Your task to perform on an android device: Open CNN.com Image 0: 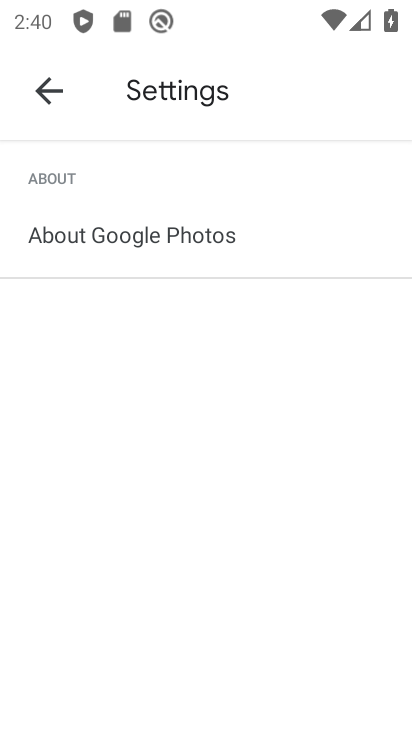
Step 0: press home button
Your task to perform on an android device: Open CNN.com Image 1: 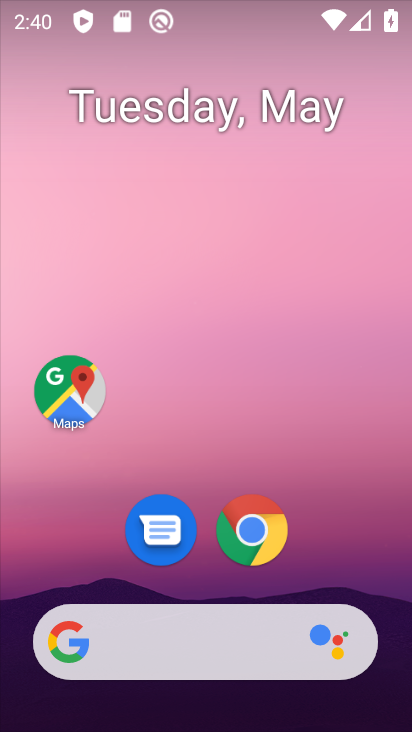
Step 1: click (257, 539)
Your task to perform on an android device: Open CNN.com Image 2: 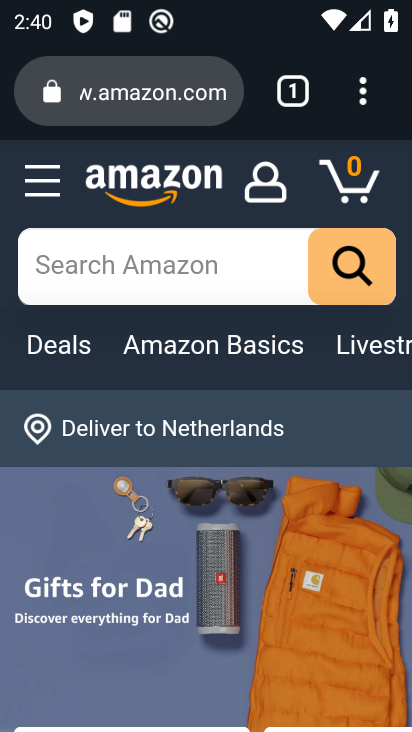
Step 2: click (171, 83)
Your task to perform on an android device: Open CNN.com Image 3: 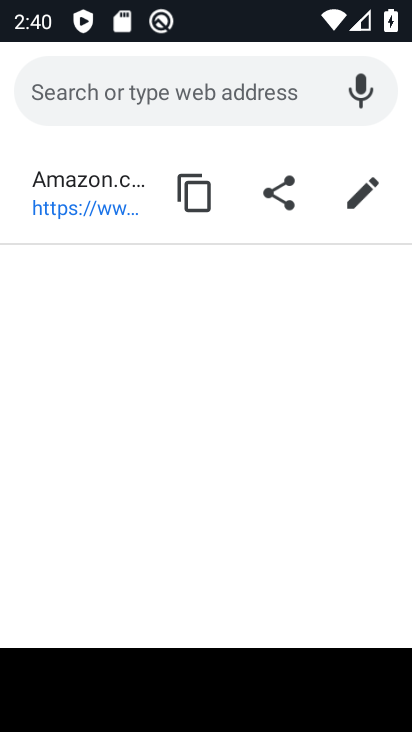
Step 3: type "CNN.com"
Your task to perform on an android device: Open CNN.com Image 4: 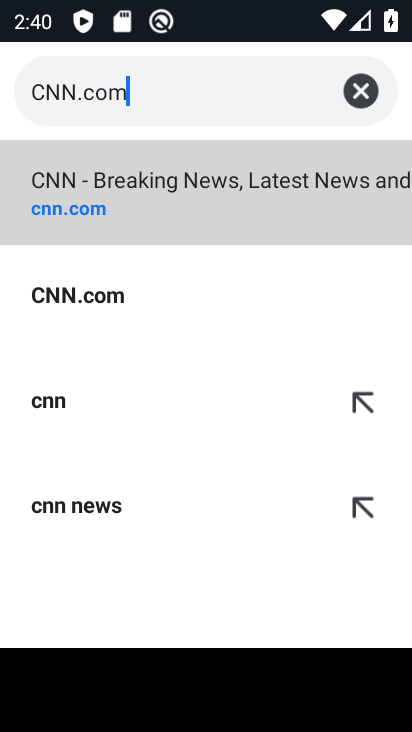
Step 4: type ""
Your task to perform on an android device: Open CNN.com Image 5: 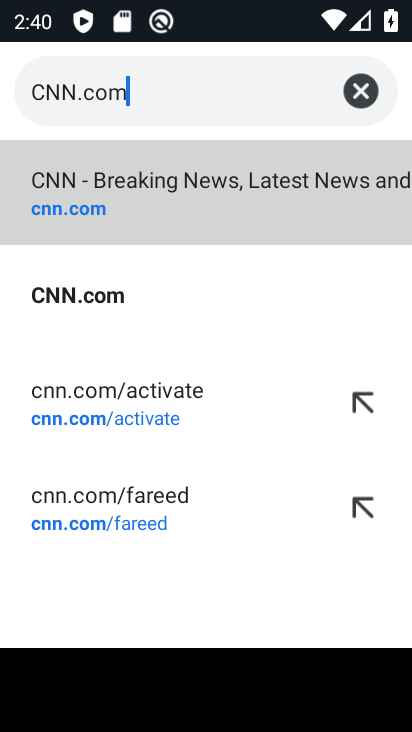
Step 5: click (172, 187)
Your task to perform on an android device: Open CNN.com Image 6: 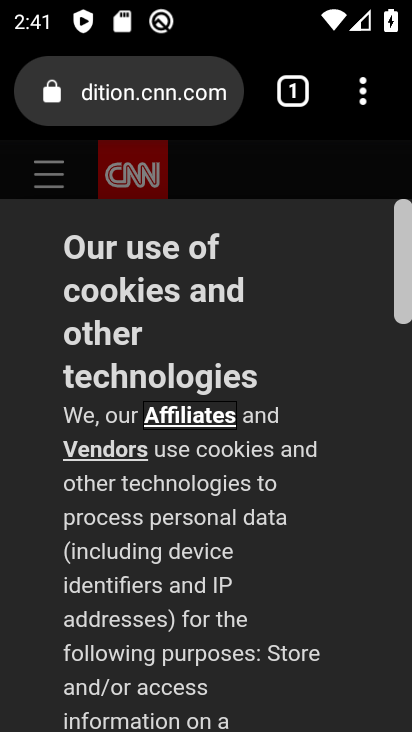
Step 6: task complete